Your task to perform on an android device: Open Google Maps Image 0: 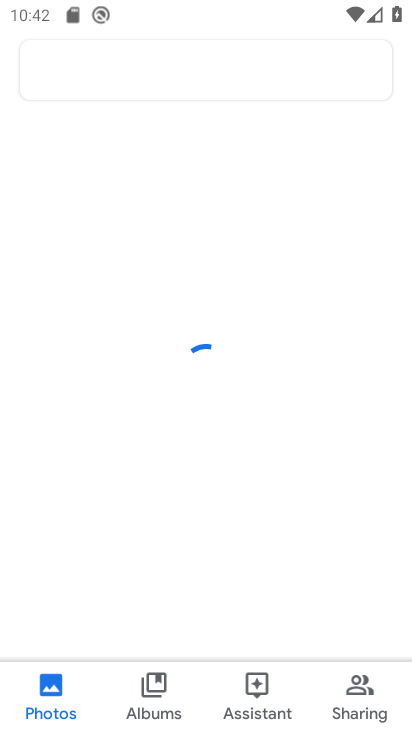
Step 0: press home button
Your task to perform on an android device: Open Google Maps Image 1: 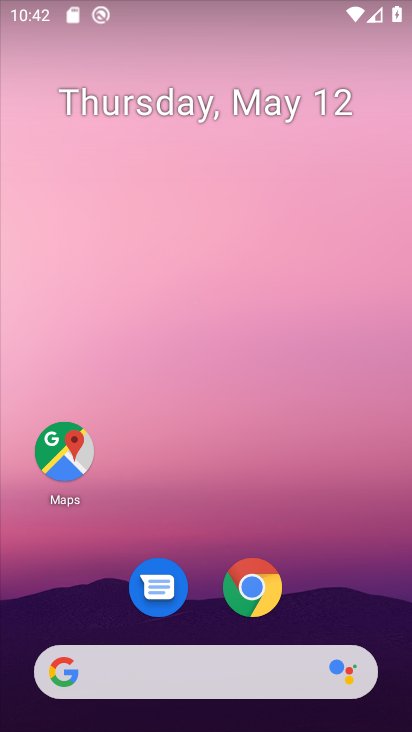
Step 1: click (69, 453)
Your task to perform on an android device: Open Google Maps Image 2: 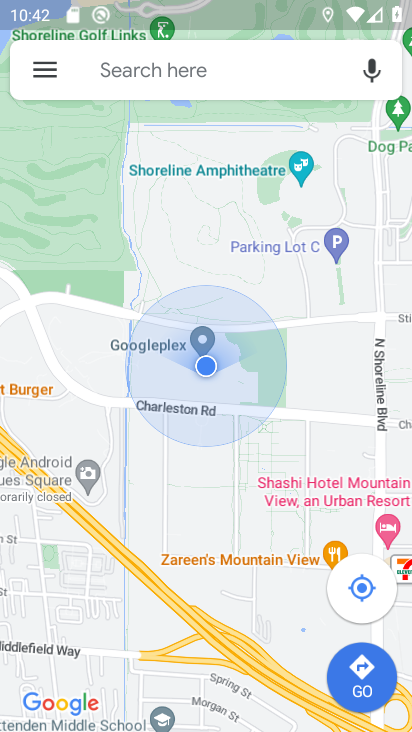
Step 2: task complete